Your task to perform on an android device: check battery use Image 0: 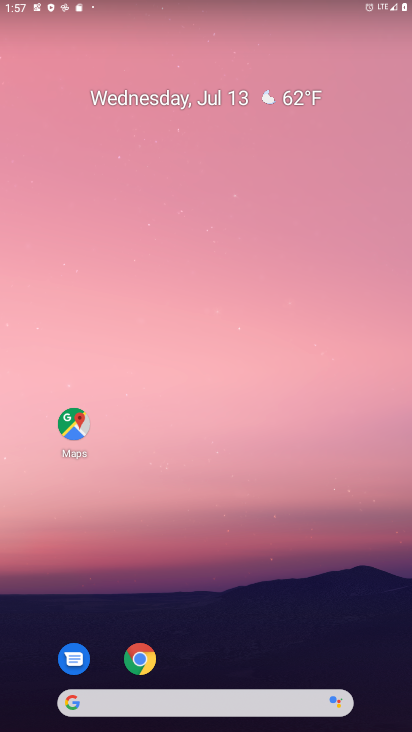
Step 0: drag from (207, 720) to (181, 116)
Your task to perform on an android device: check battery use Image 1: 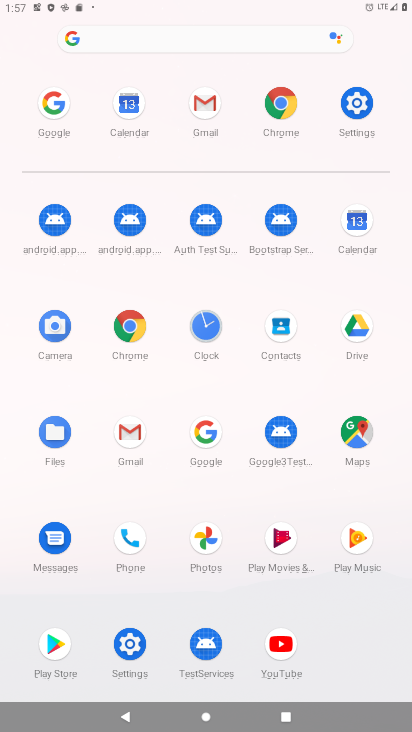
Step 1: click (359, 102)
Your task to perform on an android device: check battery use Image 2: 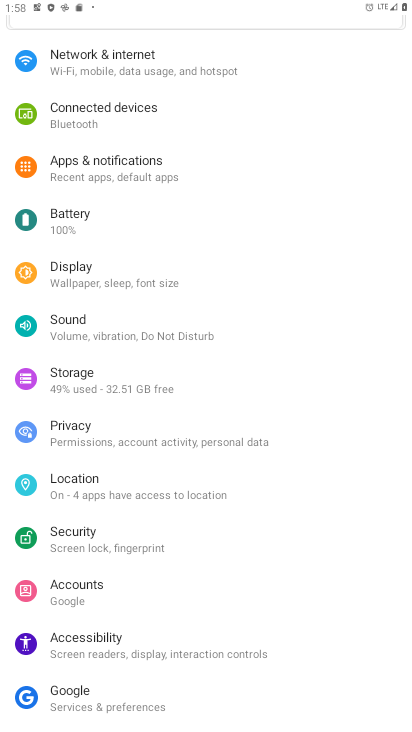
Step 2: click (71, 222)
Your task to perform on an android device: check battery use Image 3: 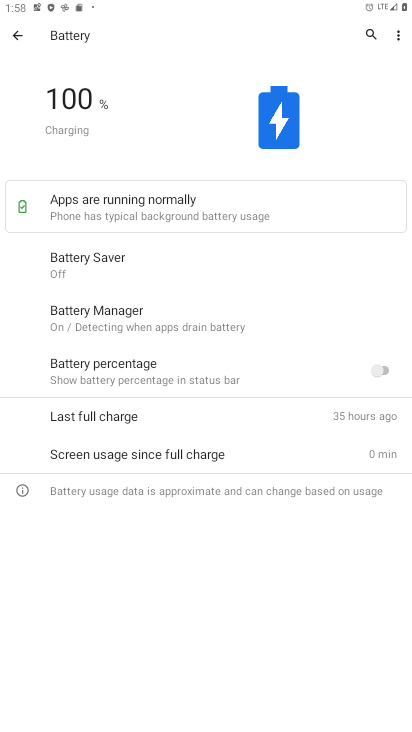
Step 3: click (399, 39)
Your task to perform on an android device: check battery use Image 4: 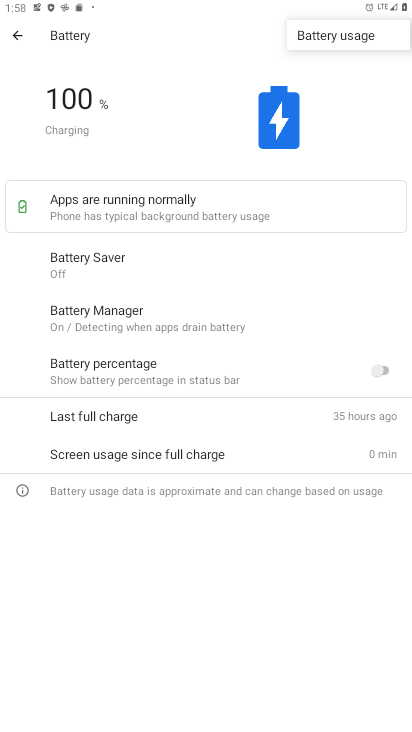
Step 4: click (328, 34)
Your task to perform on an android device: check battery use Image 5: 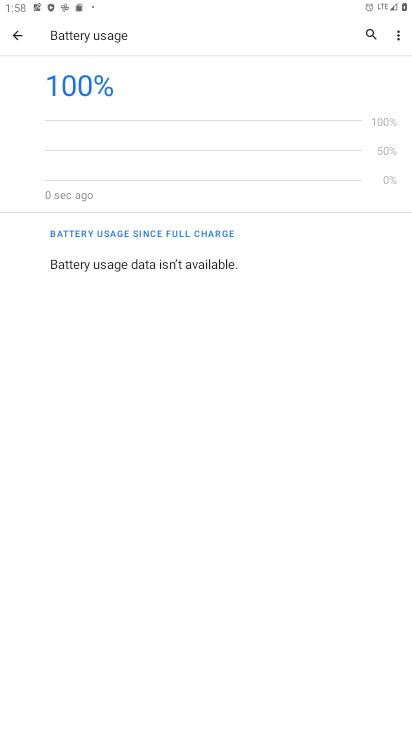
Step 5: task complete